Your task to perform on an android device: empty trash in google photos Image 0: 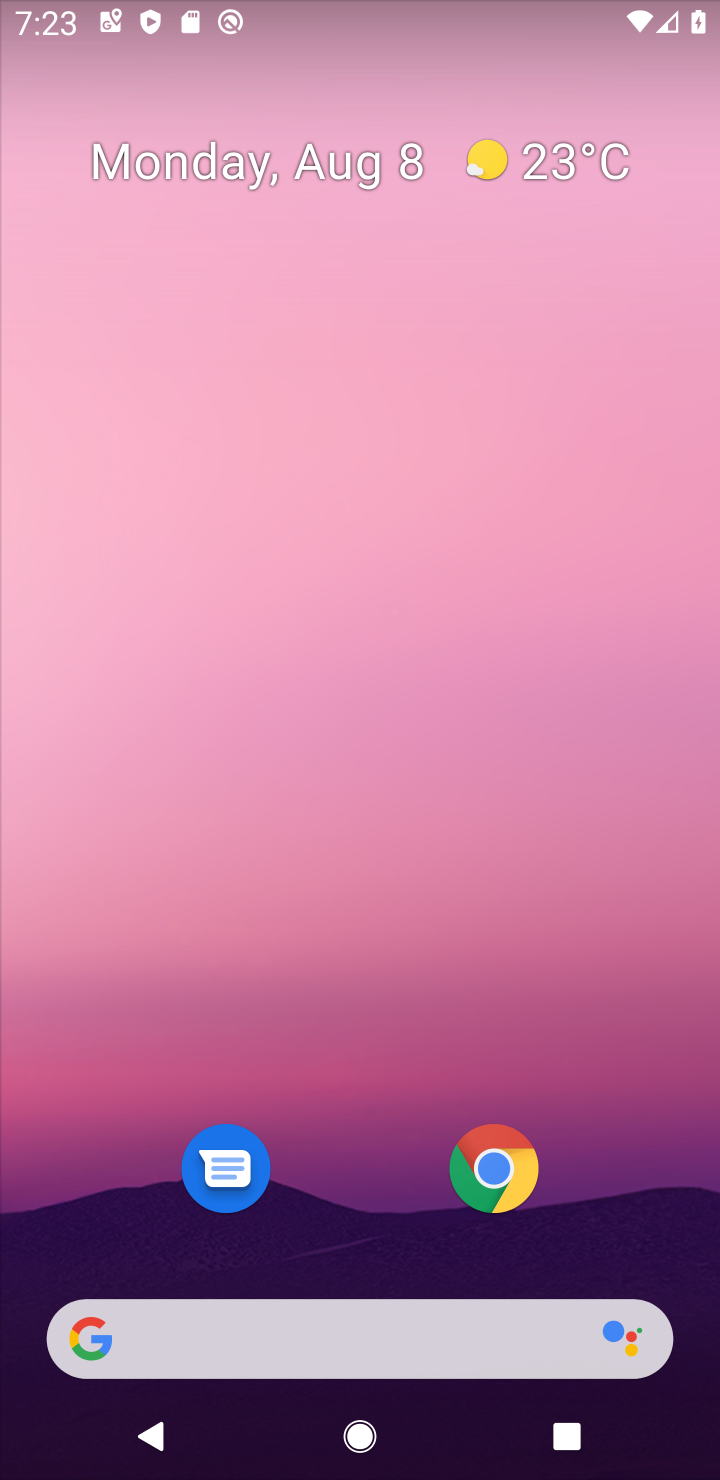
Step 0: drag from (627, 1236) to (274, 19)
Your task to perform on an android device: empty trash in google photos Image 1: 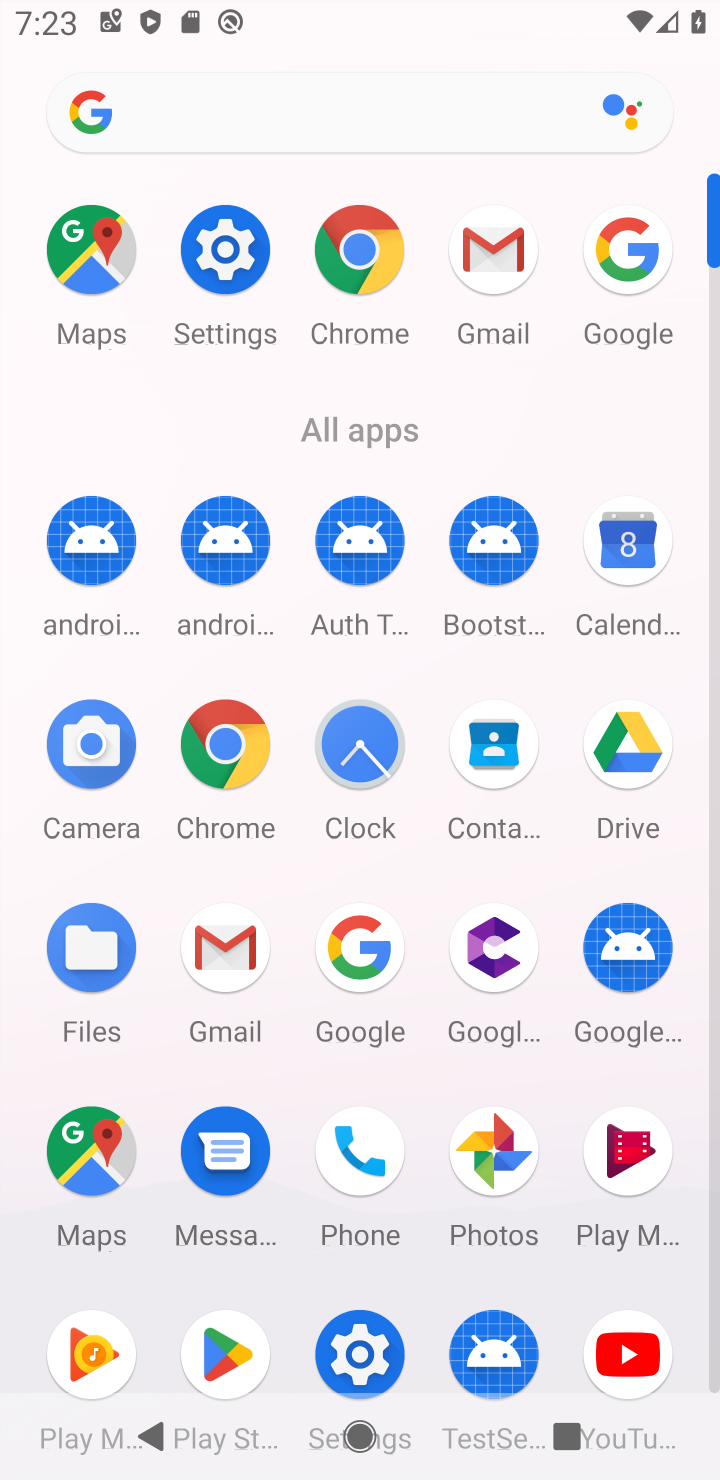
Step 1: click (471, 1190)
Your task to perform on an android device: empty trash in google photos Image 2: 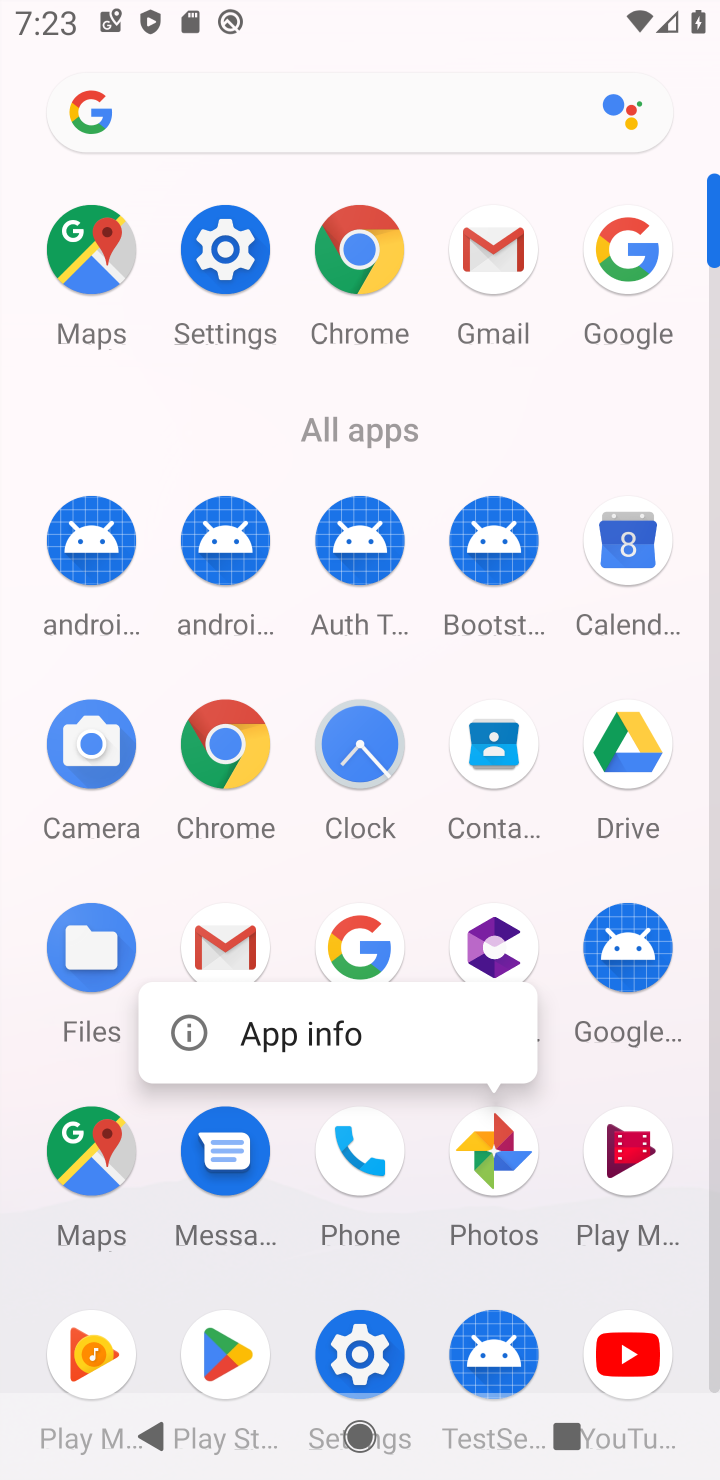
Step 2: click (471, 1186)
Your task to perform on an android device: empty trash in google photos Image 3: 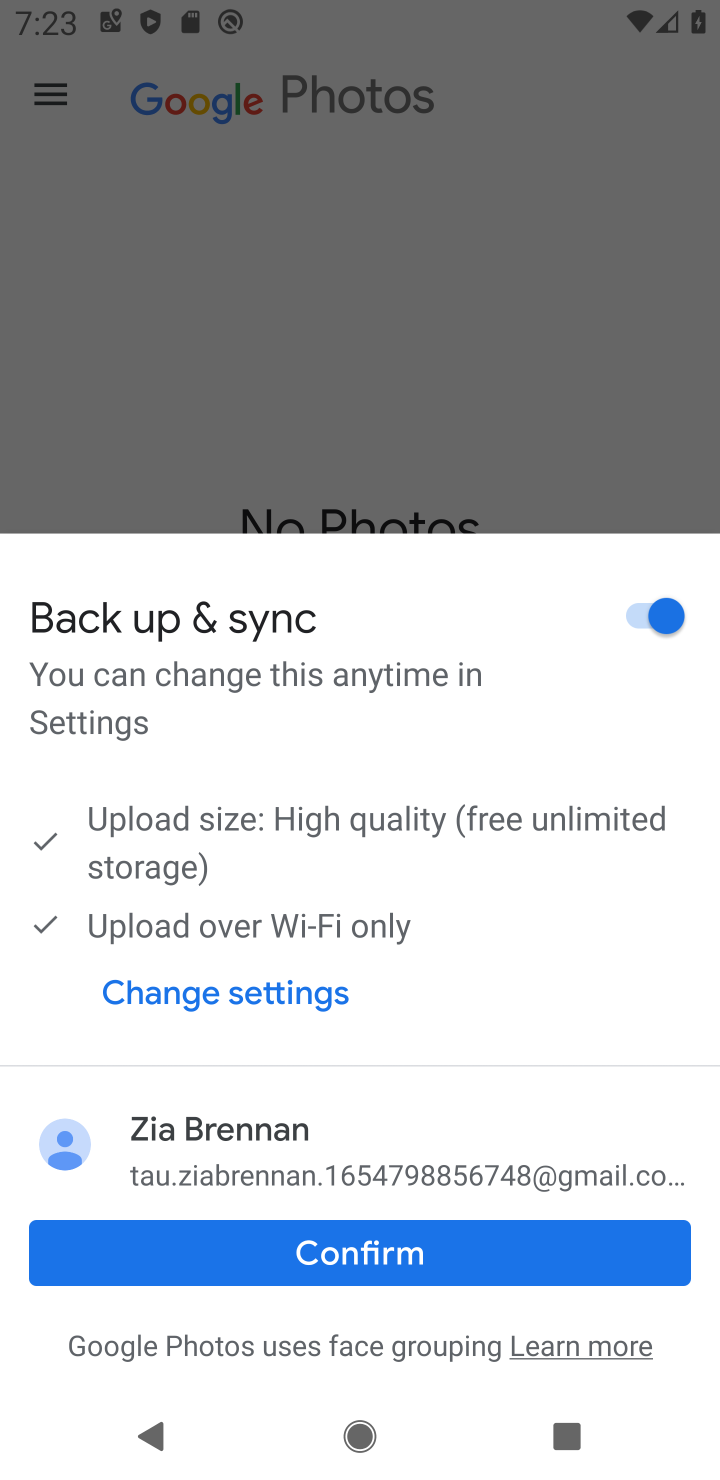
Step 3: click (490, 1250)
Your task to perform on an android device: empty trash in google photos Image 4: 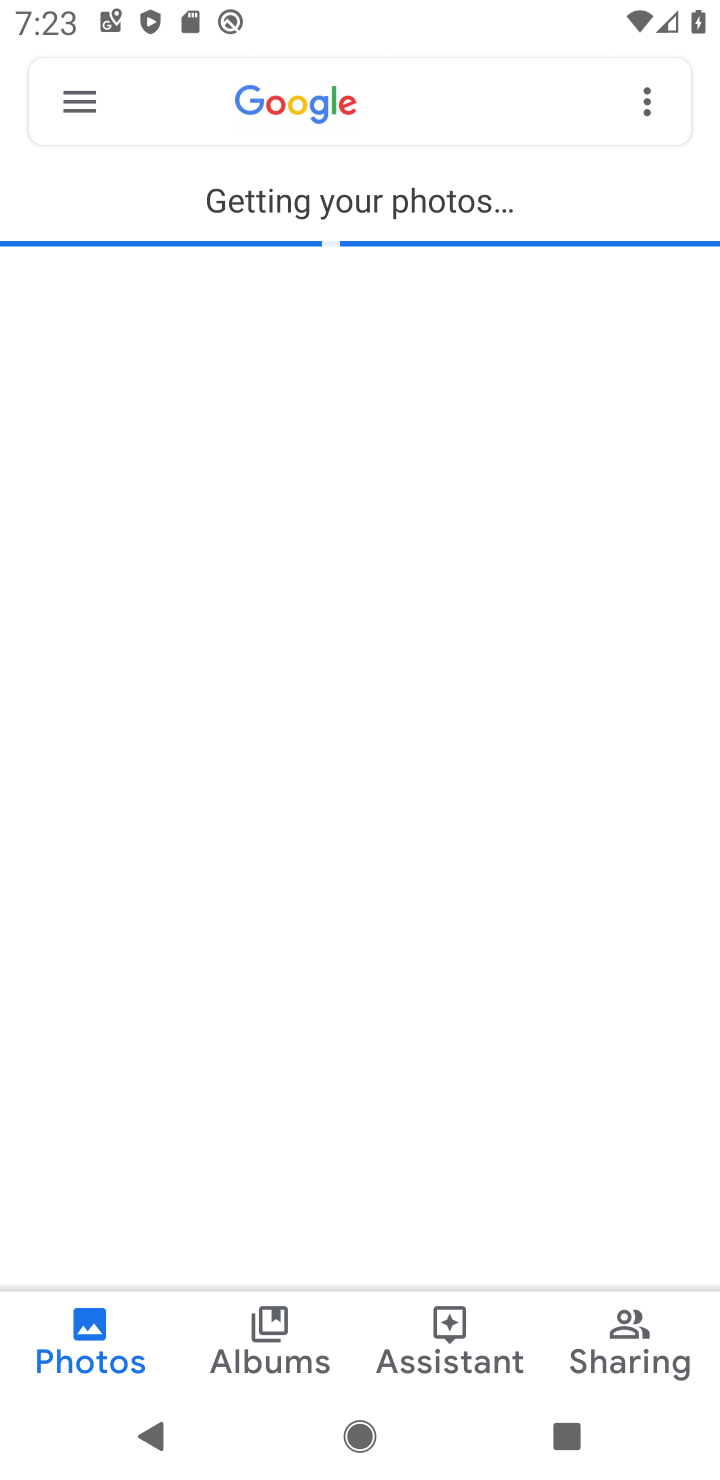
Step 4: click (57, 118)
Your task to perform on an android device: empty trash in google photos Image 5: 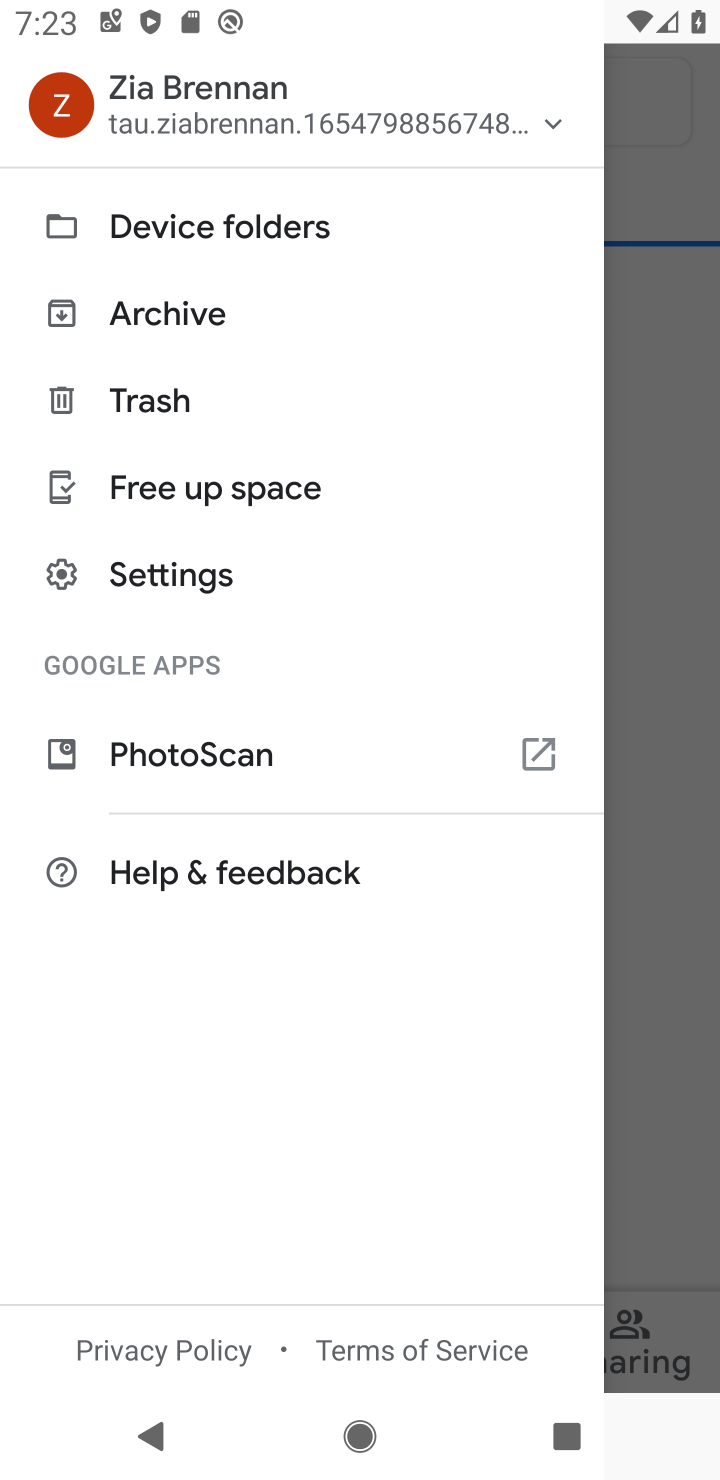
Step 5: click (177, 417)
Your task to perform on an android device: empty trash in google photos Image 6: 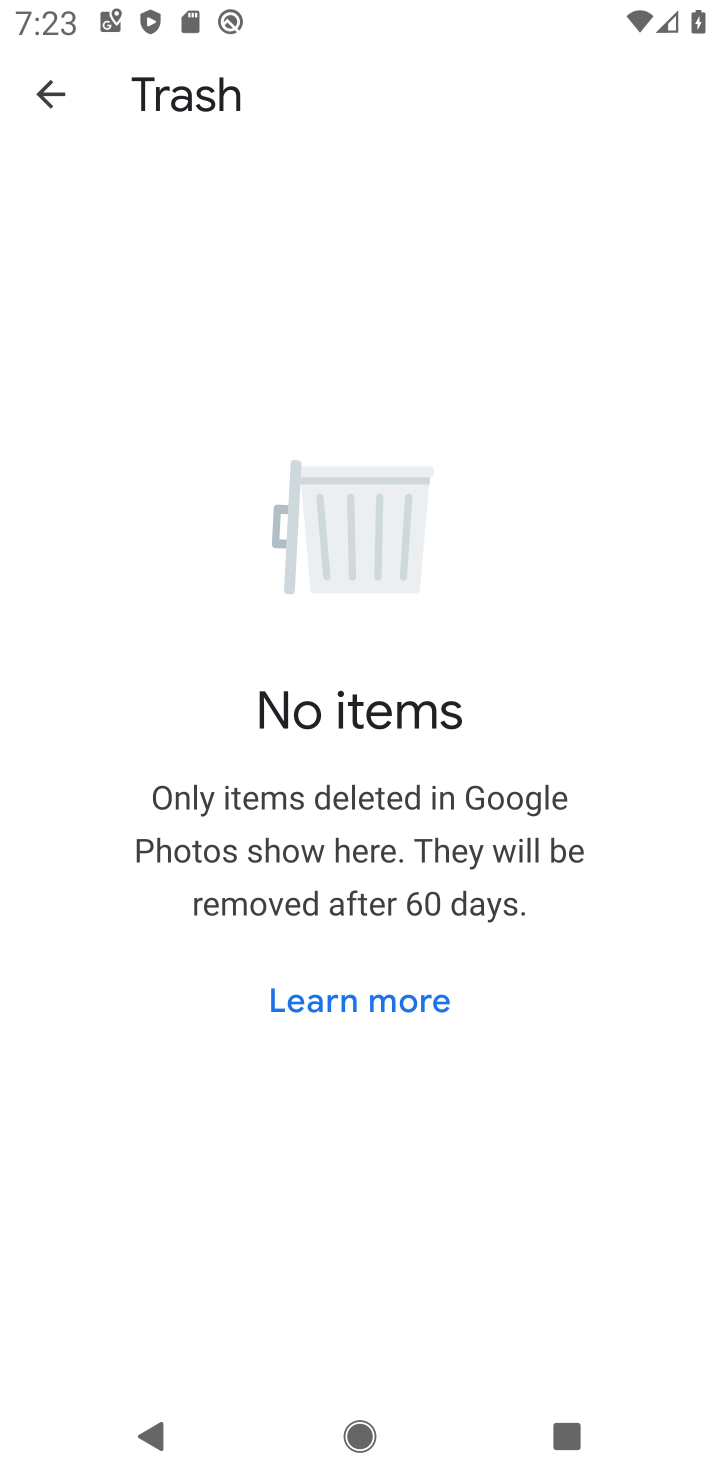
Step 6: task complete